Your task to perform on an android device: Go to eBay Image 0: 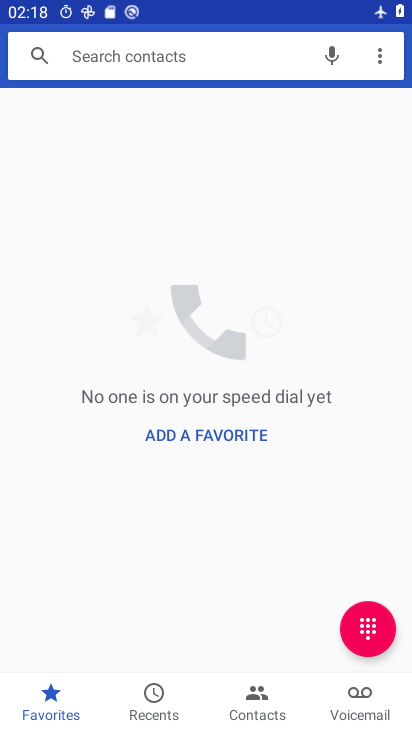
Step 0: press home button
Your task to perform on an android device: Go to eBay Image 1: 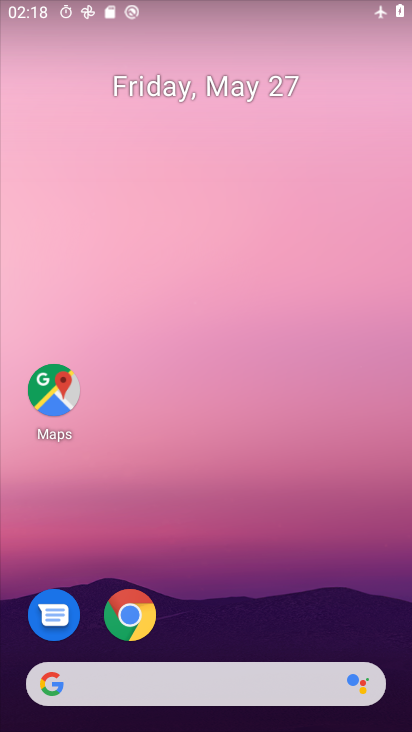
Step 1: drag from (357, 624) to (363, 169)
Your task to perform on an android device: Go to eBay Image 2: 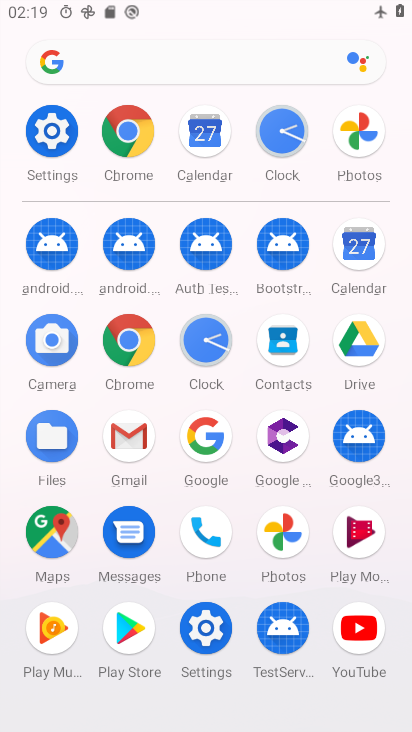
Step 2: click (129, 355)
Your task to perform on an android device: Go to eBay Image 3: 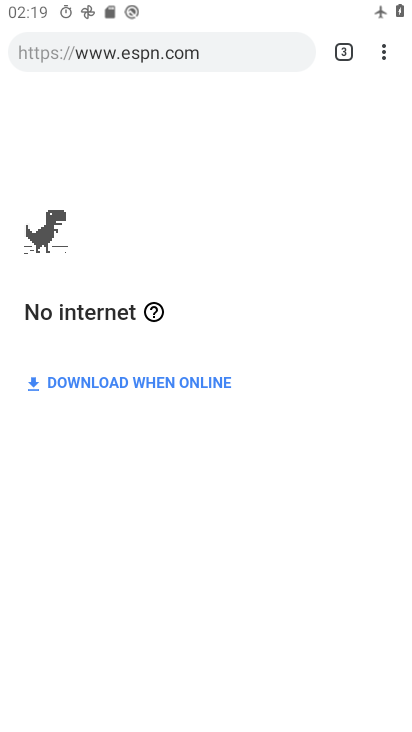
Step 3: click (212, 57)
Your task to perform on an android device: Go to eBay Image 4: 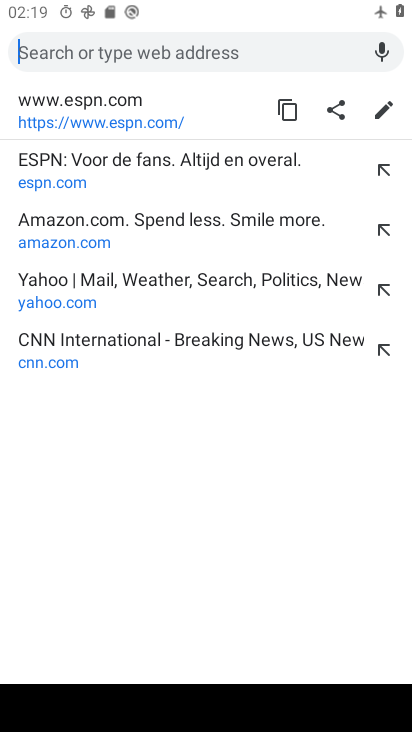
Step 4: type "ebay"
Your task to perform on an android device: Go to eBay Image 5: 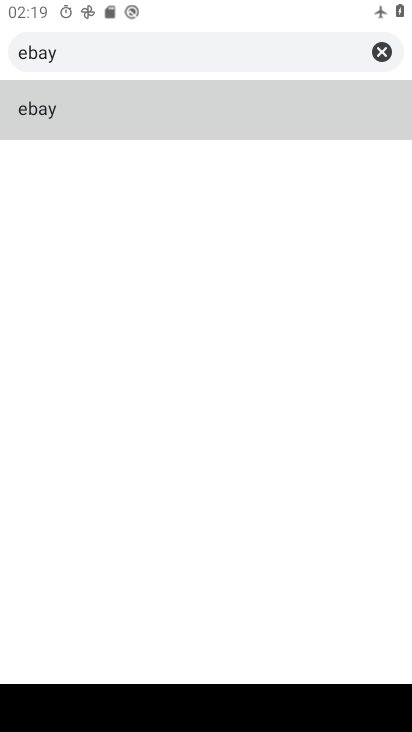
Step 5: click (109, 90)
Your task to perform on an android device: Go to eBay Image 6: 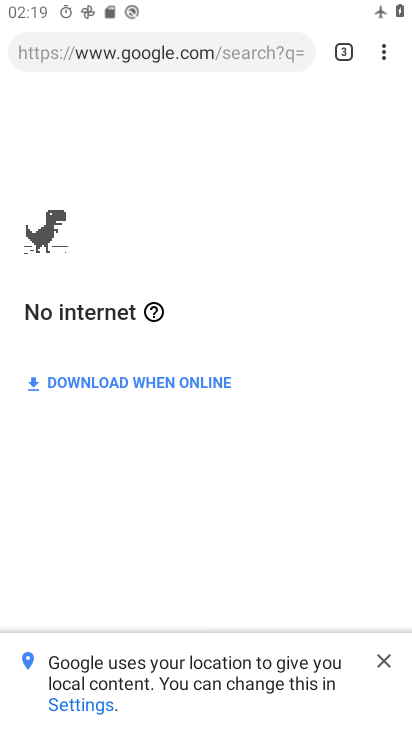
Step 6: task complete